Your task to perform on an android device: change notifications settings Image 0: 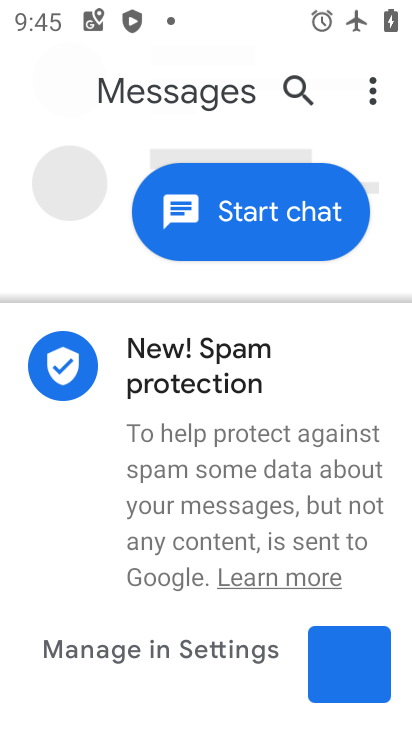
Step 0: press home button
Your task to perform on an android device: change notifications settings Image 1: 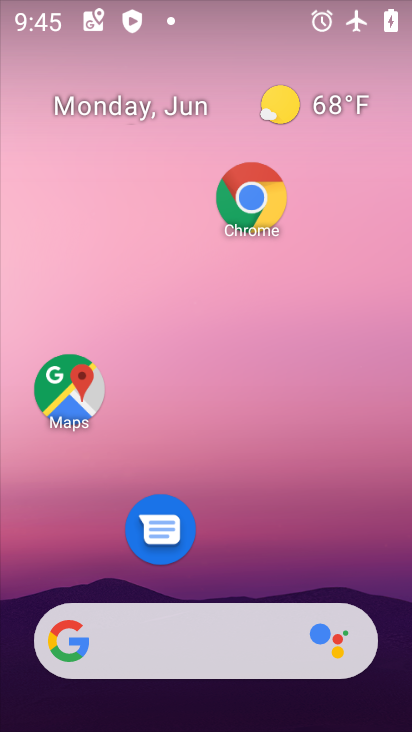
Step 1: drag from (231, 570) to (188, 175)
Your task to perform on an android device: change notifications settings Image 2: 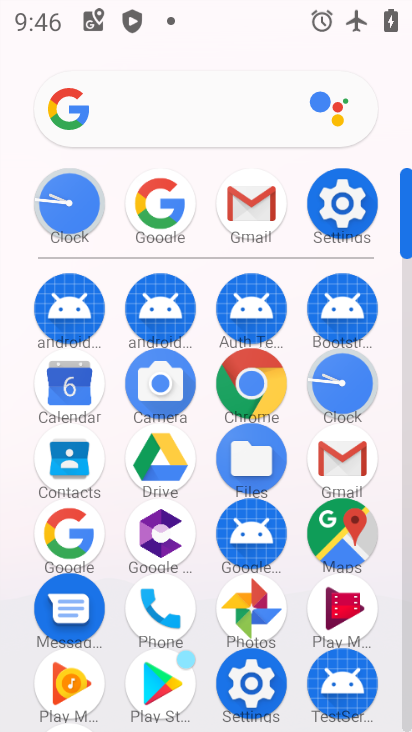
Step 2: click (320, 198)
Your task to perform on an android device: change notifications settings Image 3: 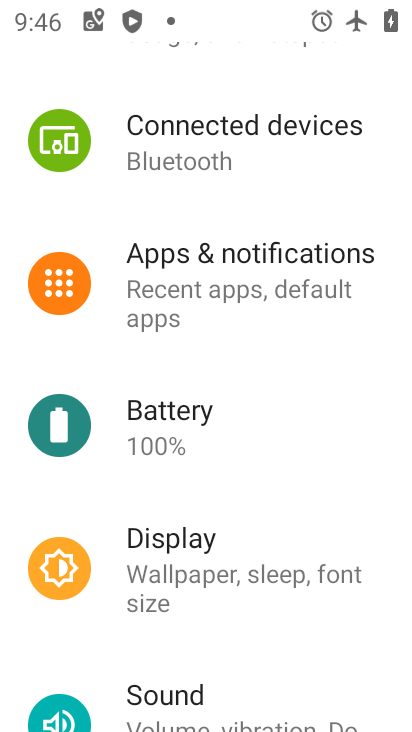
Step 3: click (215, 286)
Your task to perform on an android device: change notifications settings Image 4: 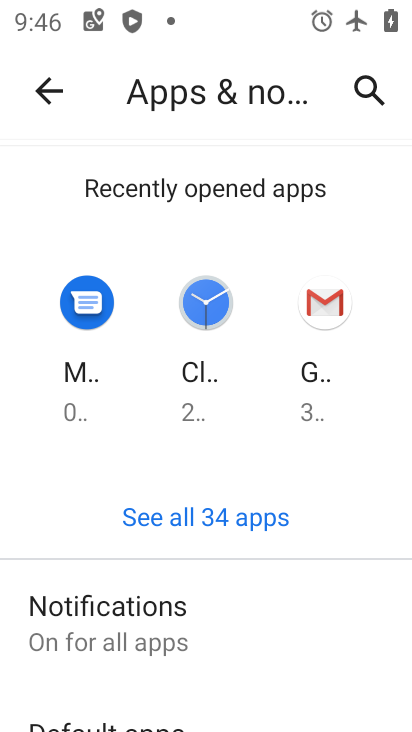
Step 4: drag from (196, 614) to (212, 421)
Your task to perform on an android device: change notifications settings Image 5: 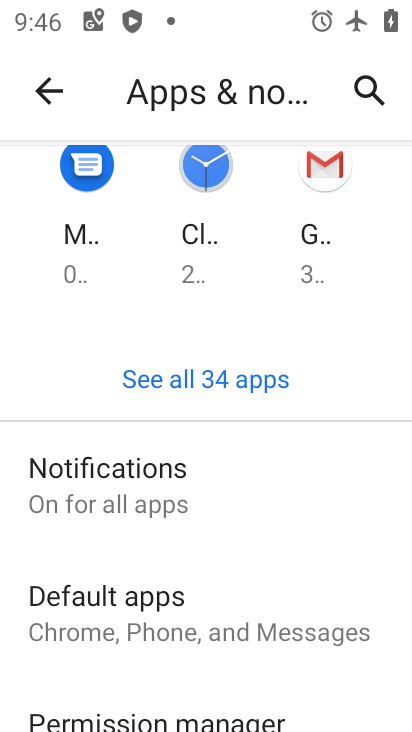
Step 5: click (165, 463)
Your task to perform on an android device: change notifications settings Image 6: 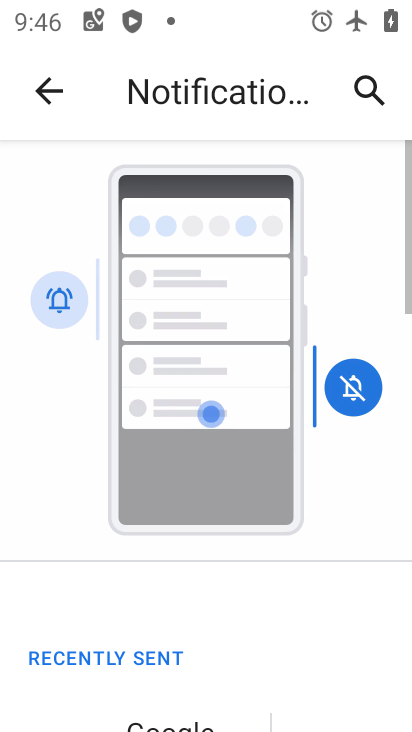
Step 6: drag from (282, 608) to (276, 210)
Your task to perform on an android device: change notifications settings Image 7: 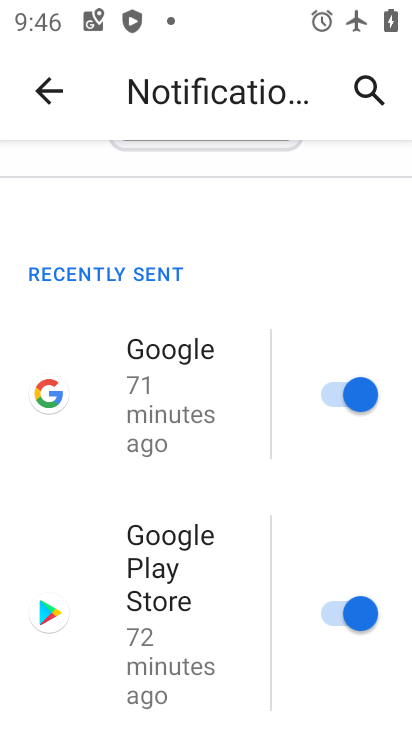
Step 7: drag from (218, 623) to (238, 240)
Your task to perform on an android device: change notifications settings Image 8: 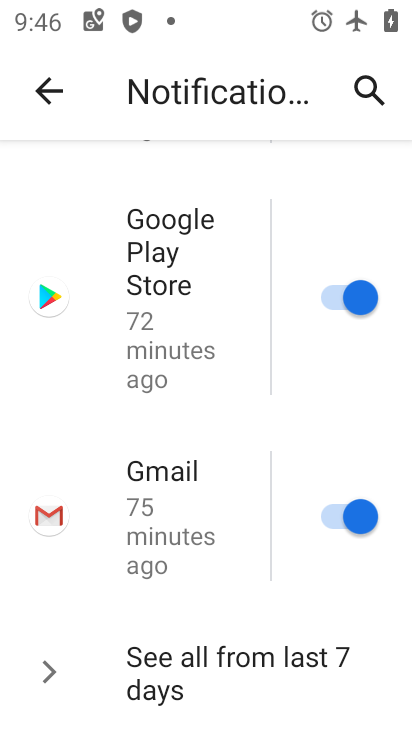
Step 8: drag from (243, 587) to (257, 472)
Your task to perform on an android device: change notifications settings Image 9: 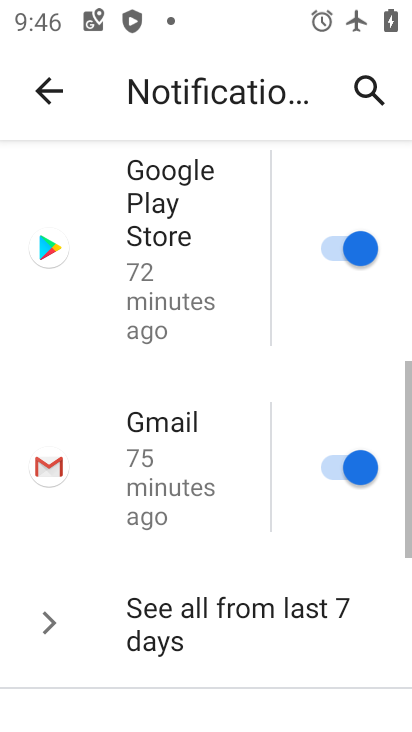
Step 9: drag from (253, 166) to (253, 490)
Your task to perform on an android device: change notifications settings Image 10: 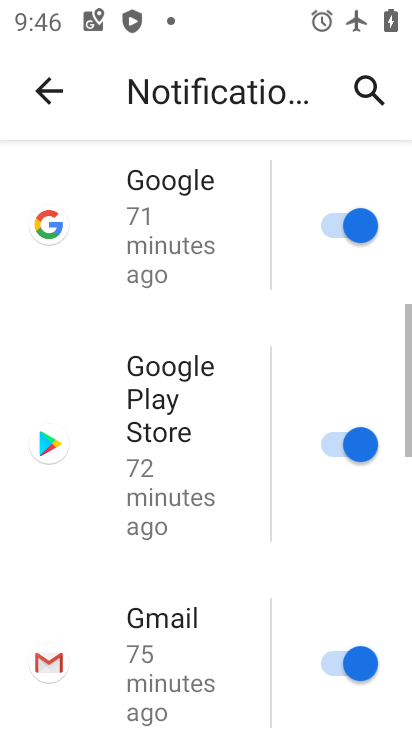
Step 10: drag from (220, 179) to (233, 463)
Your task to perform on an android device: change notifications settings Image 11: 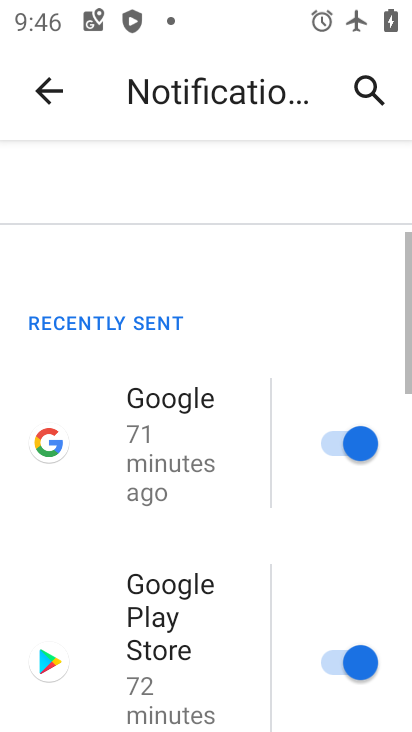
Step 11: drag from (237, 164) to (238, 457)
Your task to perform on an android device: change notifications settings Image 12: 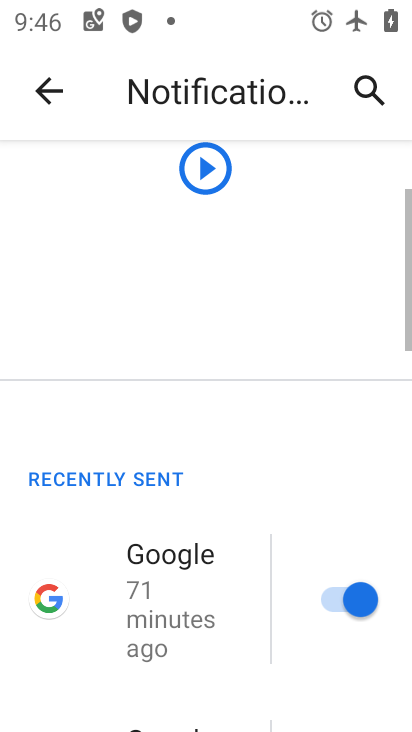
Step 12: drag from (233, 201) to (233, 469)
Your task to perform on an android device: change notifications settings Image 13: 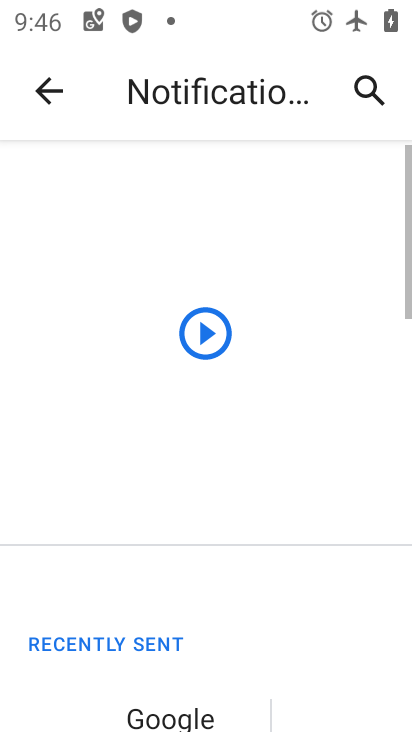
Step 13: drag from (221, 211) to (221, 489)
Your task to perform on an android device: change notifications settings Image 14: 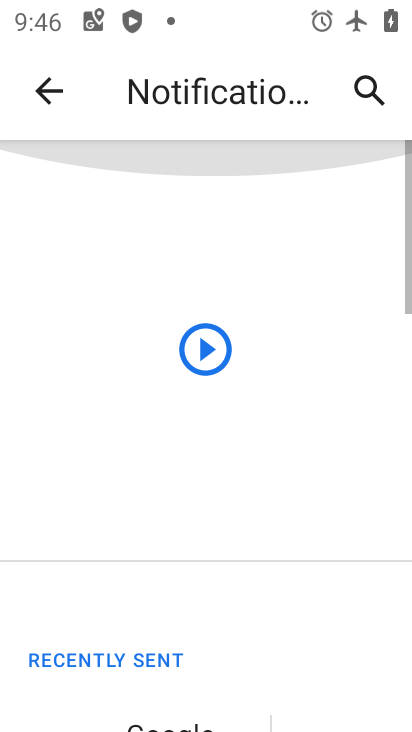
Step 14: drag from (274, 313) to (274, 507)
Your task to perform on an android device: change notifications settings Image 15: 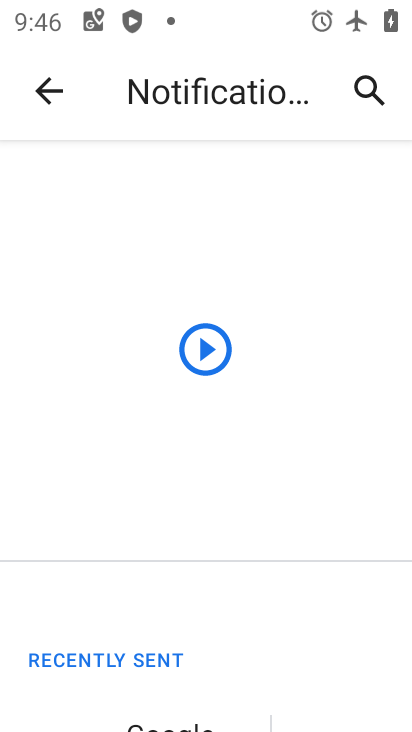
Step 15: drag from (255, 561) to (258, 326)
Your task to perform on an android device: change notifications settings Image 16: 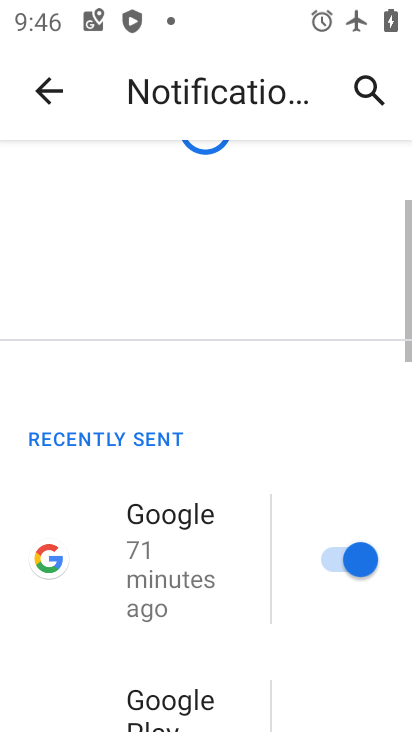
Step 16: drag from (244, 538) to (251, 318)
Your task to perform on an android device: change notifications settings Image 17: 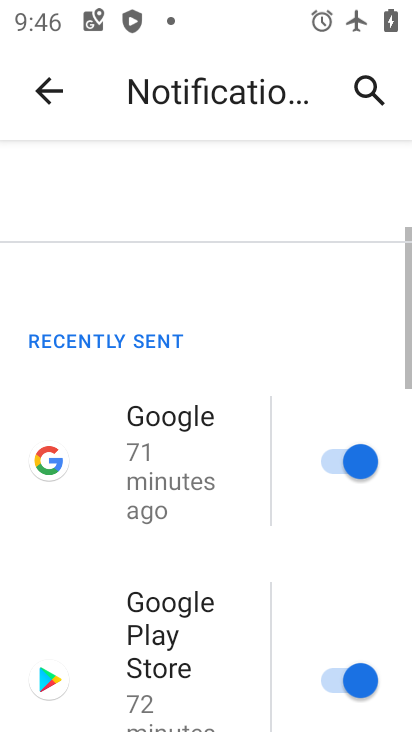
Step 17: drag from (297, 480) to (293, 287)
Your task to perform on an android device: change notifications settings Image 18: 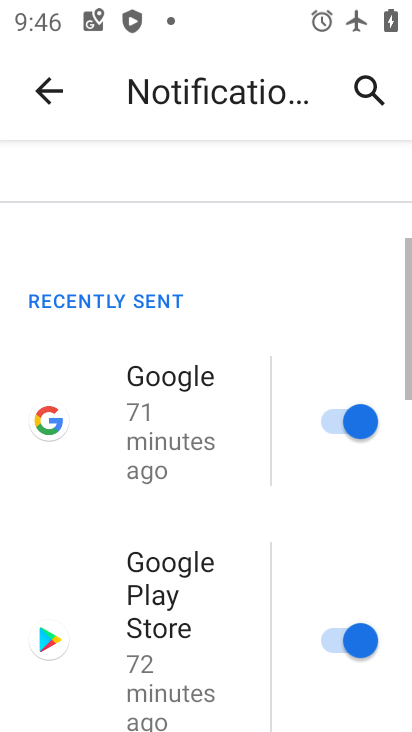
Step 18: drag from (275, 498) to (278, 251)
Your task to perform on an android device: change notifications settings Image 19: 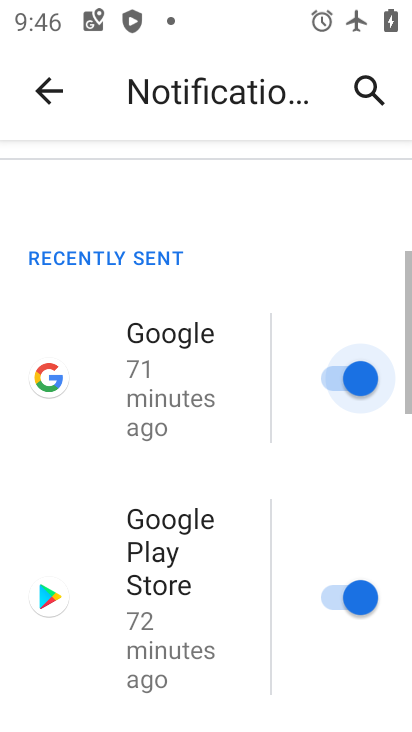
Step 19: drag from (285, 431) to (287, 227)
Your task to perform on an android device: change notifications settings Image 20: 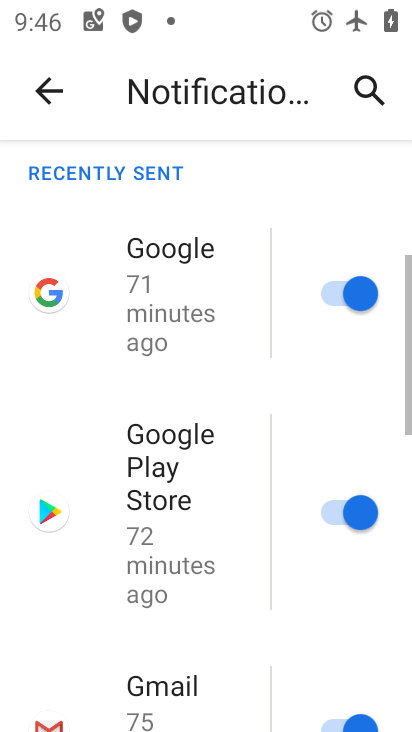
Step 20: drag from (280, 459) to (280, 231)
Your task to perform on an android device: change notifications settings Image 21: 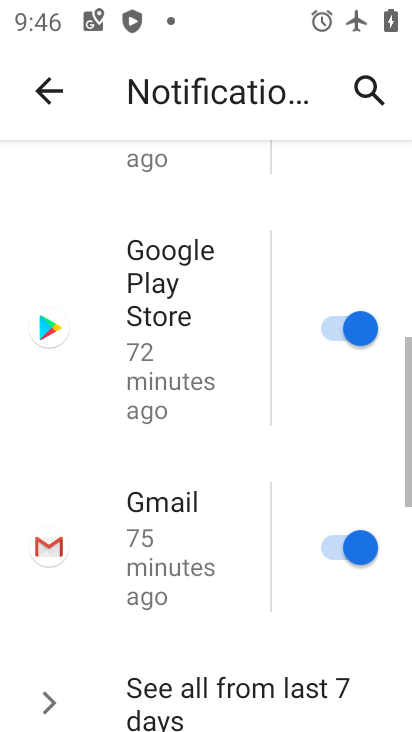
Step 21: drag from (270, 521) to (271, 251)
Your task to perform on an android device: change notifications settings Image 22: 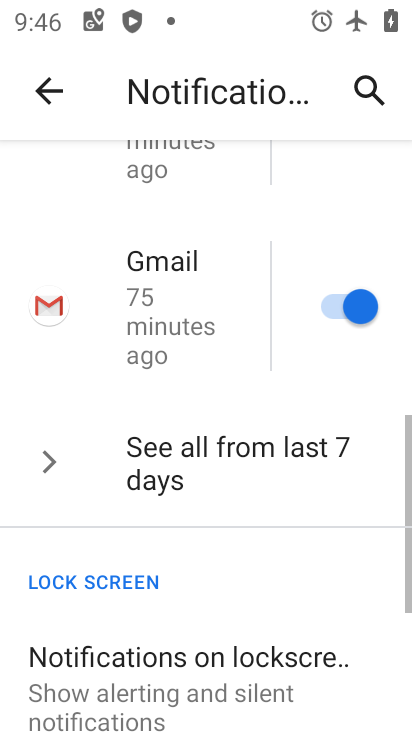
Step 22: drag from (294, 526) to (282, 259)
Your task to perform on an android device: change notifications settings Image 23: 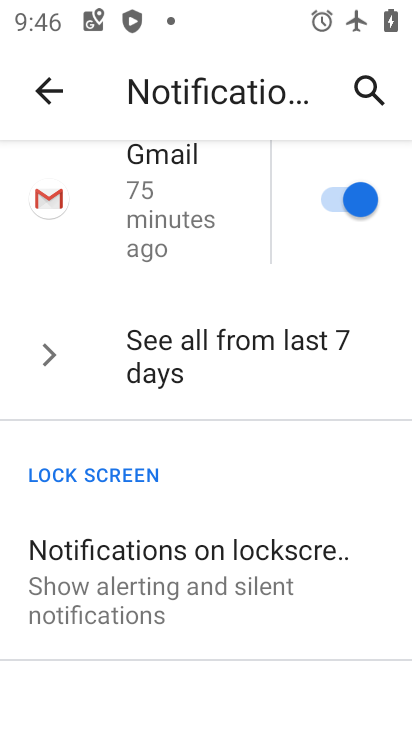
Step 23: drag from (258, 541) to (268, 376)
Your task to perform on an android device: change notifications settings Image 24: 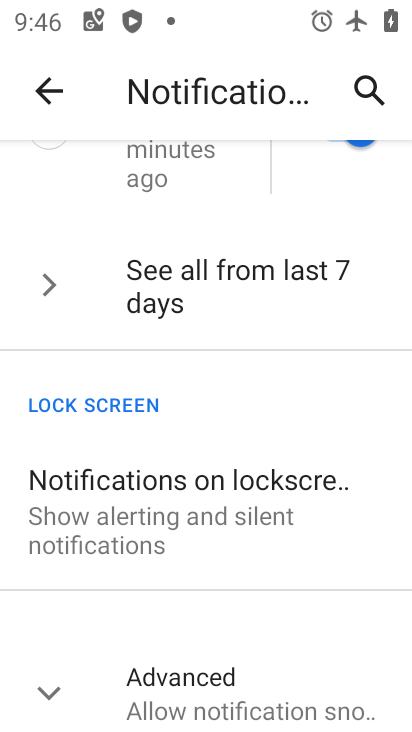
Step 24: click (265, 494)
Your task to perform on an android device: change notifications settings Image 25: 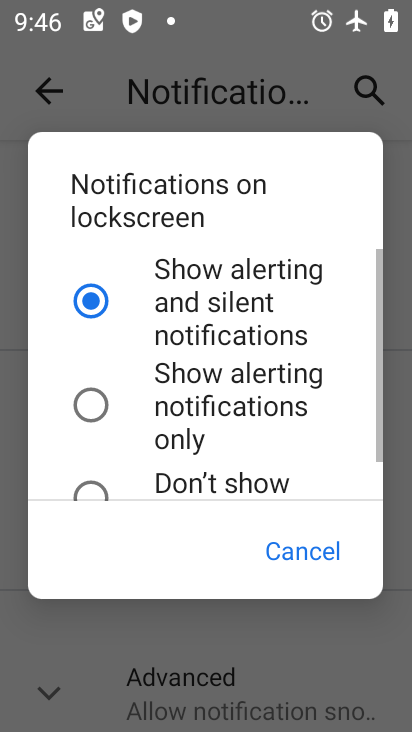
Step 25: click (203, 467)
Your task to perform on an android device: change notifications settings Image 26: 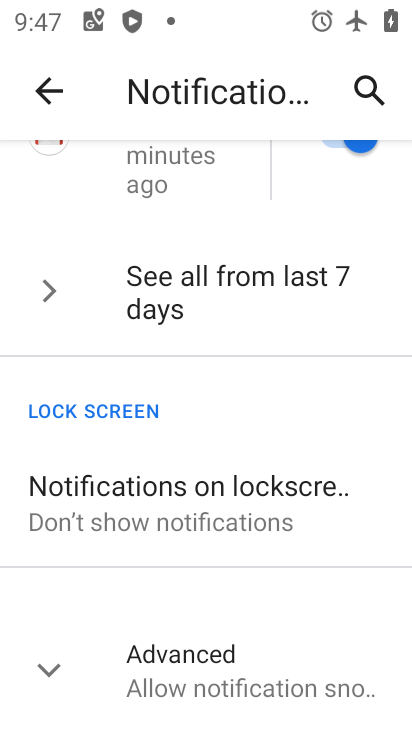
Step 26: task complete